Your task to perform on an android device: change the clock display to analog Image 0: 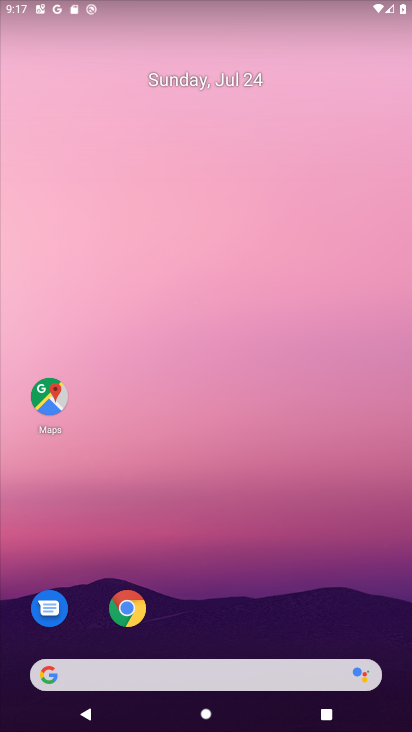
Step 0: drag from (232, 603) to (256, 288)
Your task to perform on an android device: change the clock display to analog Image 1: 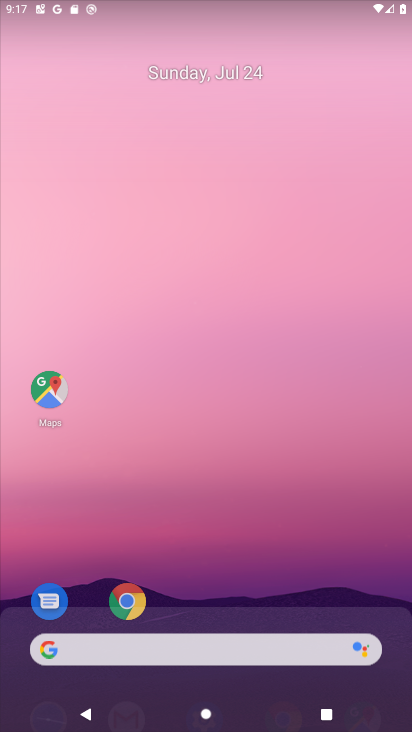
Step 1: drag from (262, 527) to (320, 17)
Your task to perform on an android device: change the clock display to analog Image 2: 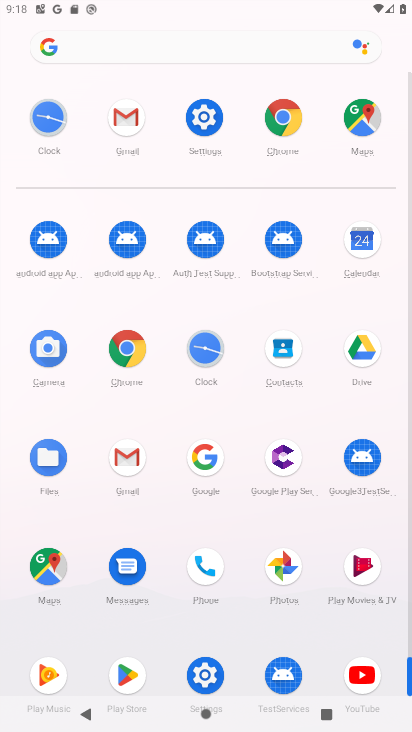
Step 2: click (210, 341)
Your task to perform on an android device: change the clock display to analog Image 3: 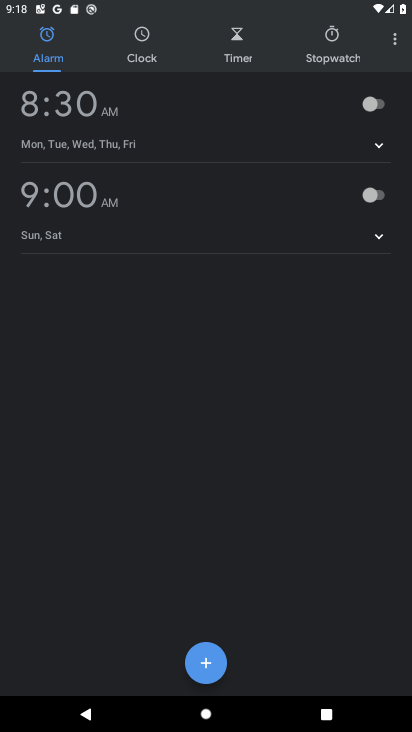
Step 3: click (403, 61)
Your task to perform on an android device: change the clock display to analog Image 4: 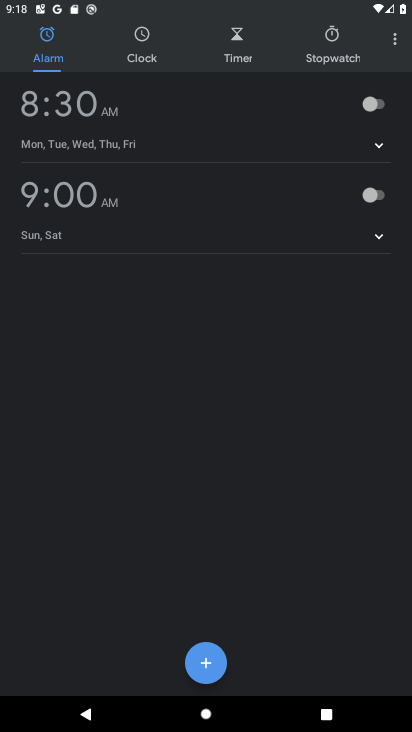
Step 4: click (404, 49)
Your task to perform on an android device: change the clock display to analog Image 5: 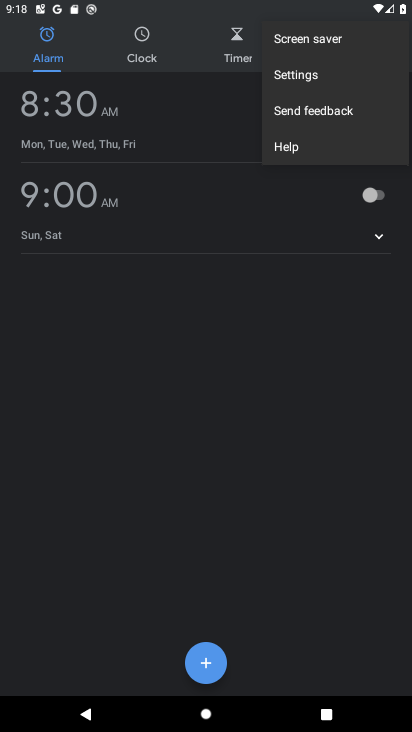
Step 5: click (330, 80)
Your task to perform on an android device: change the clock display to analog Image 6: 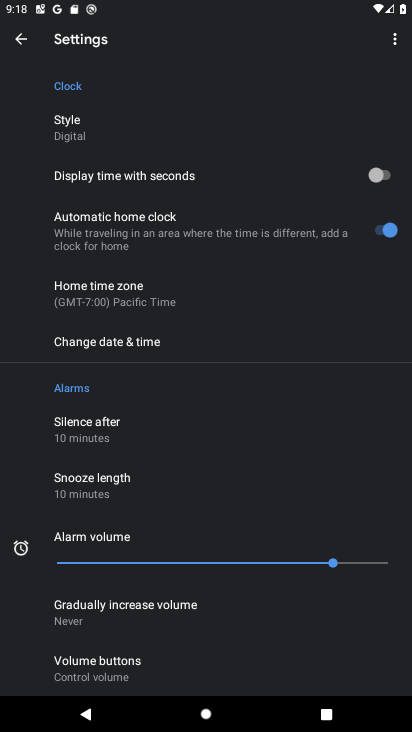
Step 6: click (93, 139)
Your task to perform on an android device: change the clock display to analog Image 7: 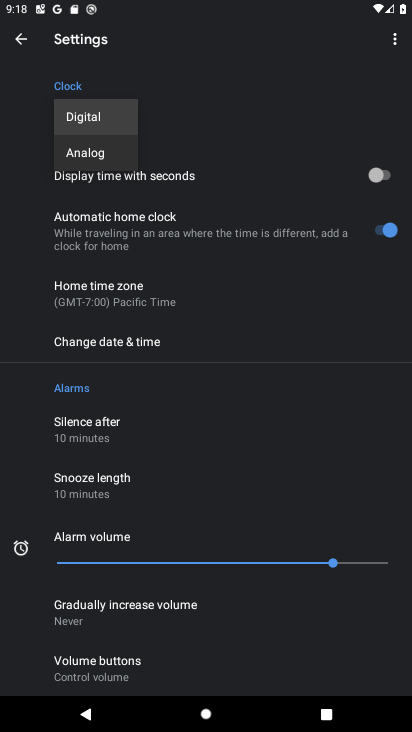
Step 7: click (93, 139)
Your task to perform on an android device: change the clock display to analog Image 8: 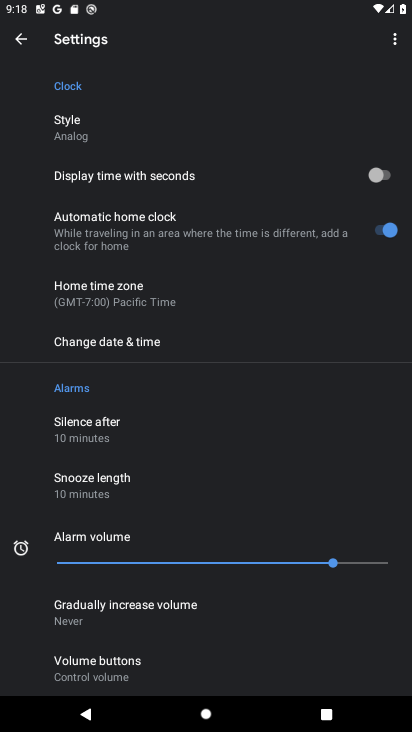
Step 8: click (103, 154)
Your task to perform on an android device: change the clock display to analog Image 9: 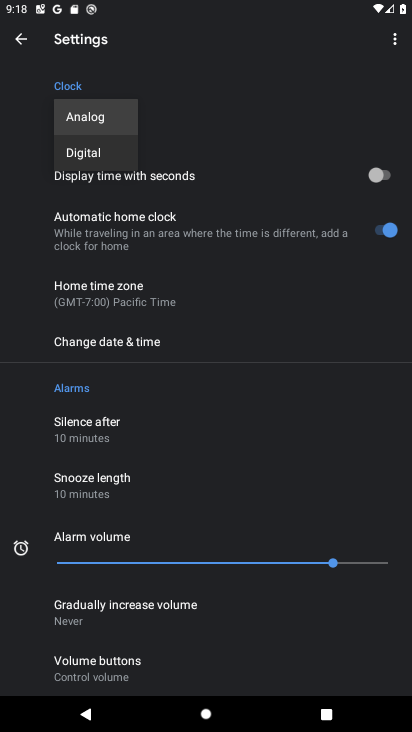
Step 9: task complete